Your task to perform on an android device: Open calendar and show me the fourth week of next month Image 0: 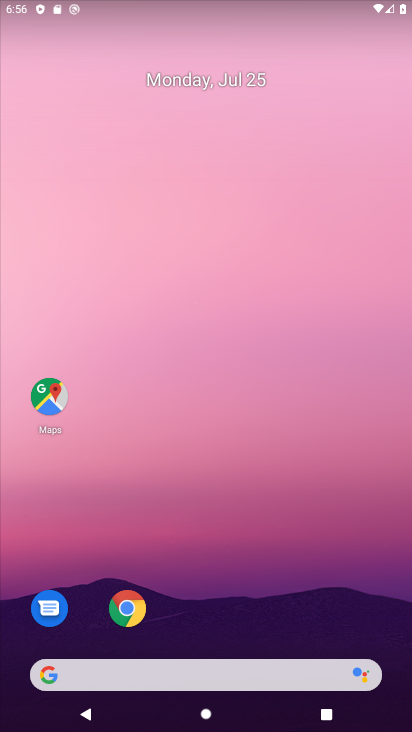
Step 0: drag from (317, 613) to (297, 0)
Your task to perform on an android device: Open calendar and show me the fourth week of next month Image 1: 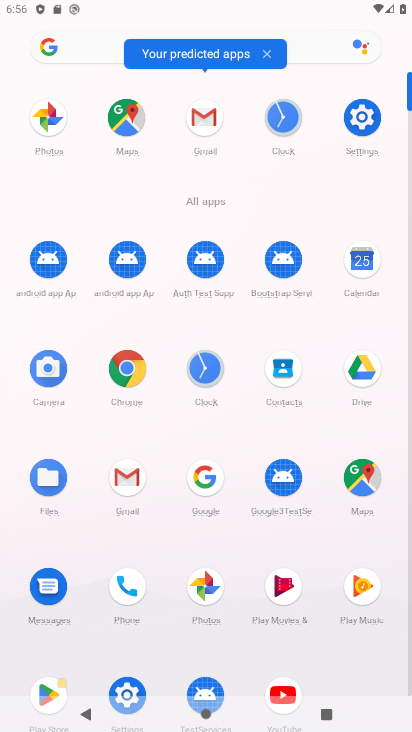
Step 1: click (359, 272)
Your task to perform on an android device: Open calendar and show me the fourth week of next month Image 2: 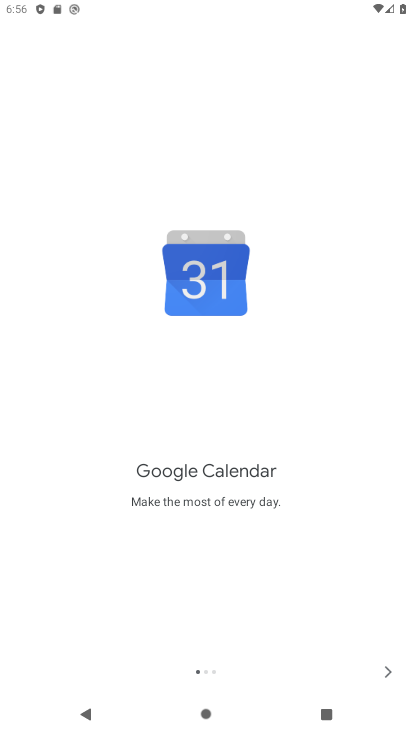
Step 2: click (394, 665)
Your task to perform on an android device: Open calendar and show me the fourth week of next month Image 3: 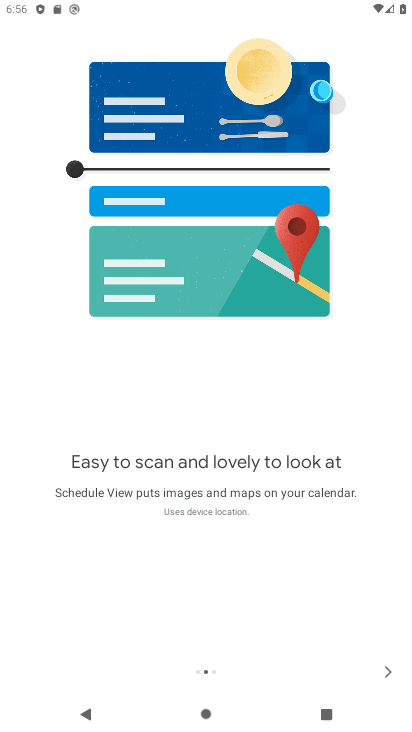
Step 3: click (386, 667)
Your task to perform on an android device: Open calendar and show me the fourth week of next month Image 4: 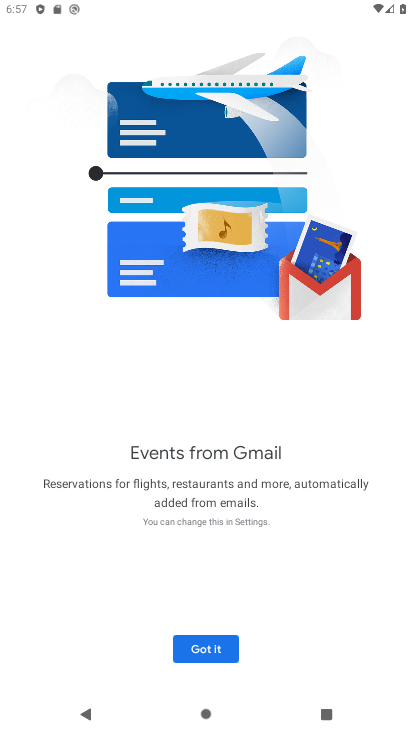
Step 4: click (223, 654)
Your task to perform on an android device: Open calendar and show me the fourth week of next month Image 5: 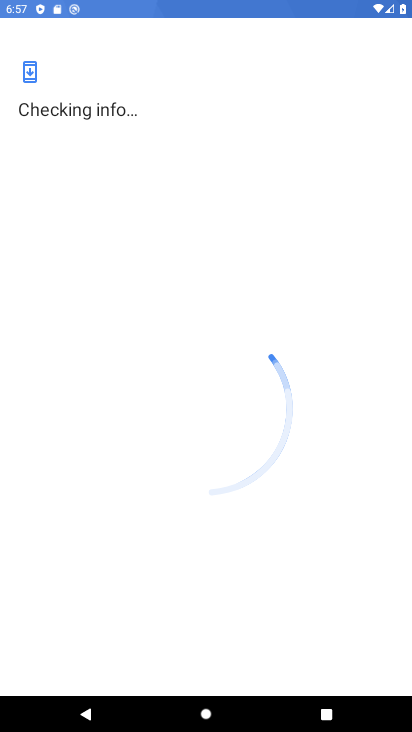
Step 5: click (56, 42)
Your task to perform on an android device: Open calendar and show me the fourth week of next month Image 6: 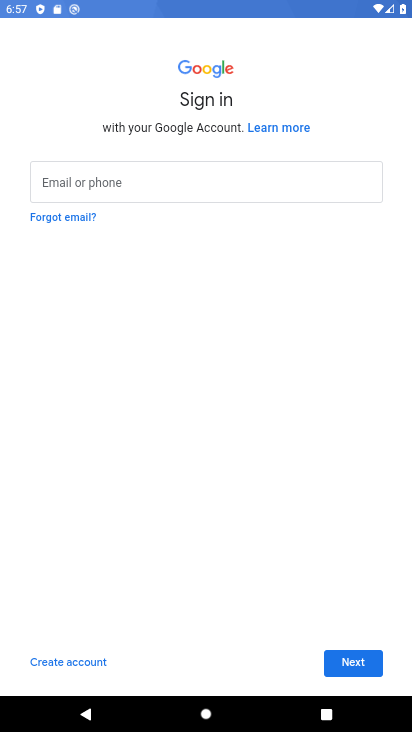
Step 6: press back button
Your task to perform on an android device: Open calendar and show me the fourth week of next month Image 7: 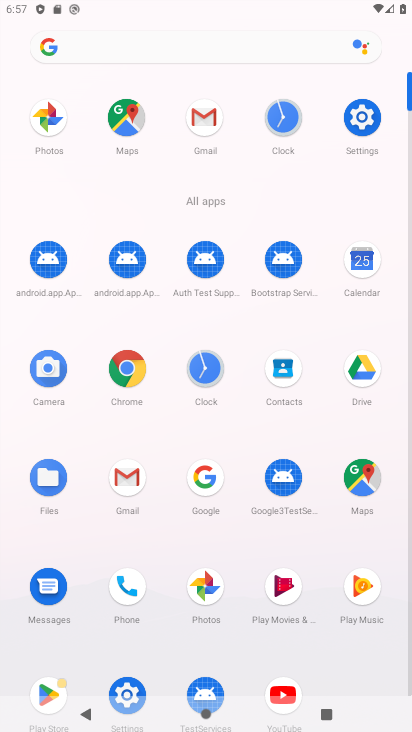
Step 7: click (351, 275)
Your task to perform on an android device: Open calendar and show me the fourth week of next month Image 8: 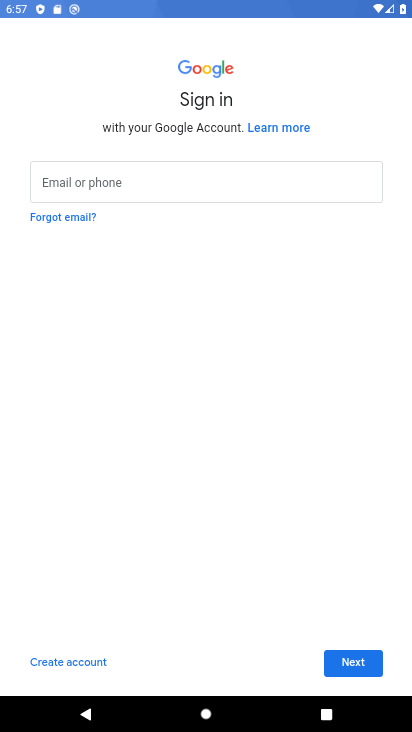
Step 8: task complete